Your task to perform on an android device: turn on the 12-hour format for clock Image 0: 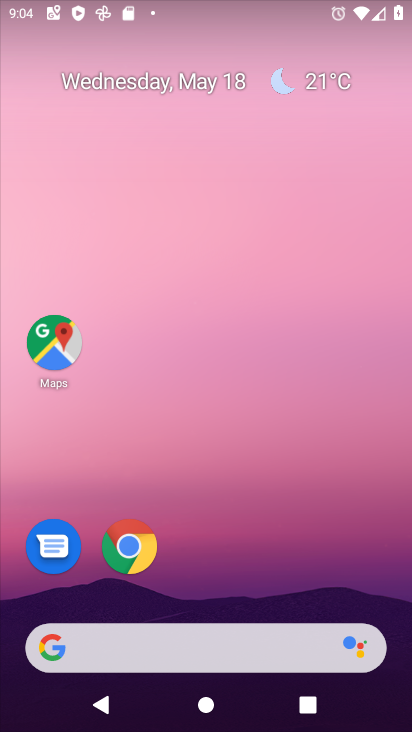
Step 0: drag from (404, 657) to (319, 7)
Your task to perform on an android device: turn on the 12-hour format for clock Image 1: 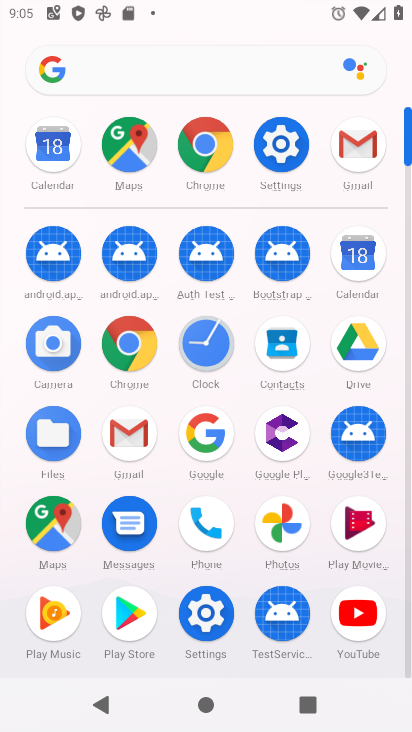
Step 1: click (218, 353)
Your task to perform on an android device: turn on the 12-hour format for clock Image 2: 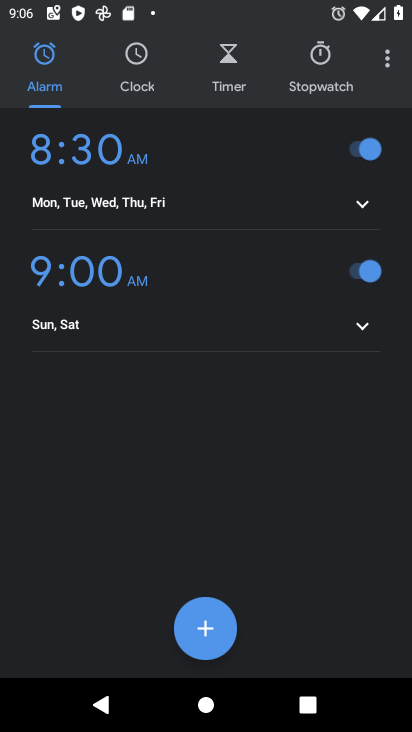
Step 2: click (388, 53)
Your task to perform on an android device: turn on the 12-hour format for clock Image 3: 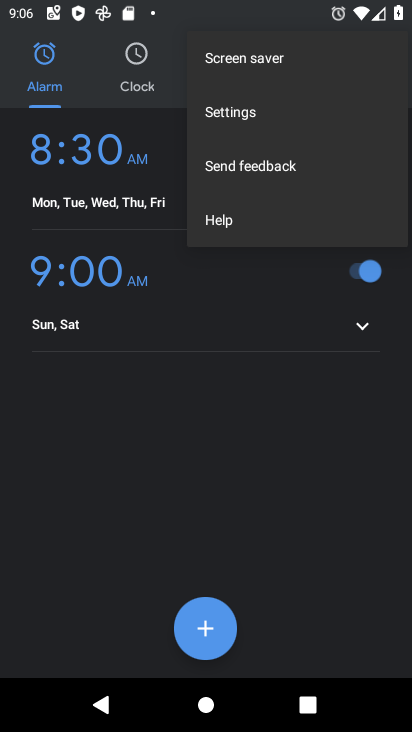
Step 3: click (276, 121)
Your task to perform on an android device: turn on the 12-hour format for clock Image 4: 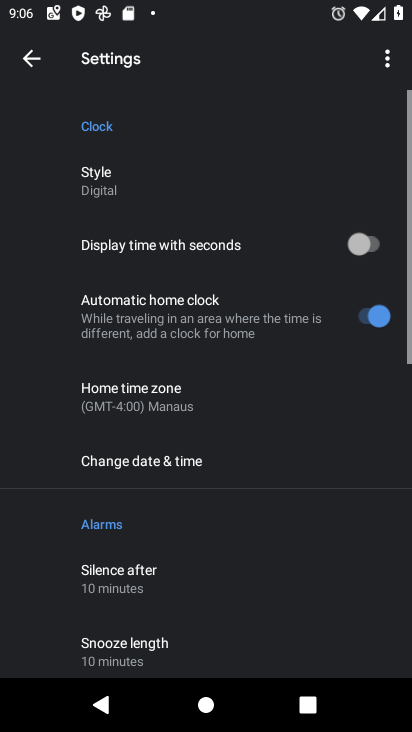
Step 4: click (197, 457)
Your task to perform on an android device: turn on the 12-hour format for clock Image 5: 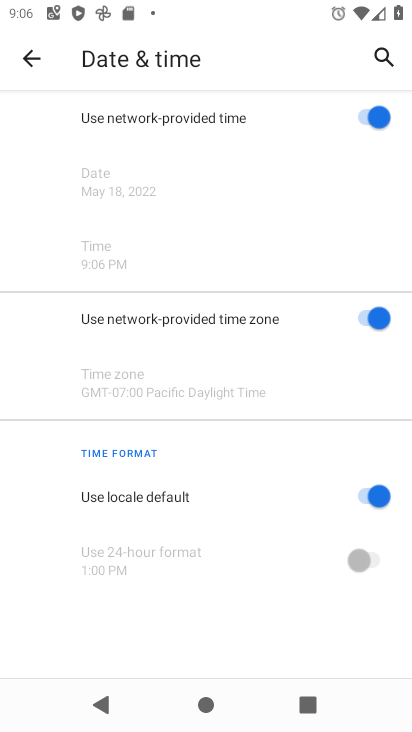
Step 5: task complete